Your task to perform on an android device: open app "Adobe Acrobat Reader: Edit PDF" (install if not already installed) and go to login screen Image 0: 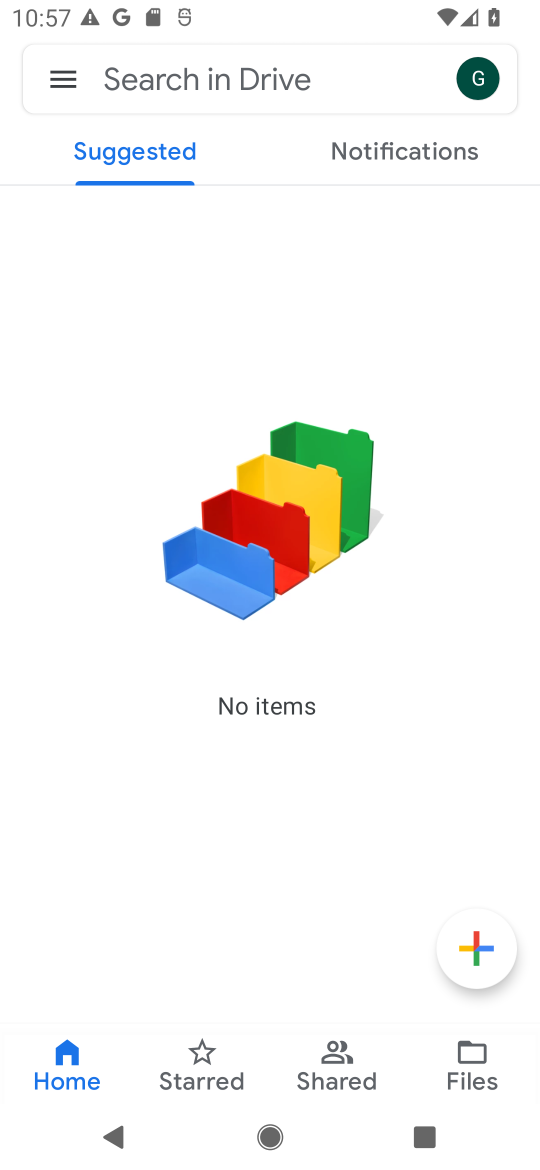
Step 0: press home button
Your task to perform on an android device: open app "Adobe Acrobat Reader: Edit PDF" (install if not already installed) and go to login screen Image 1: 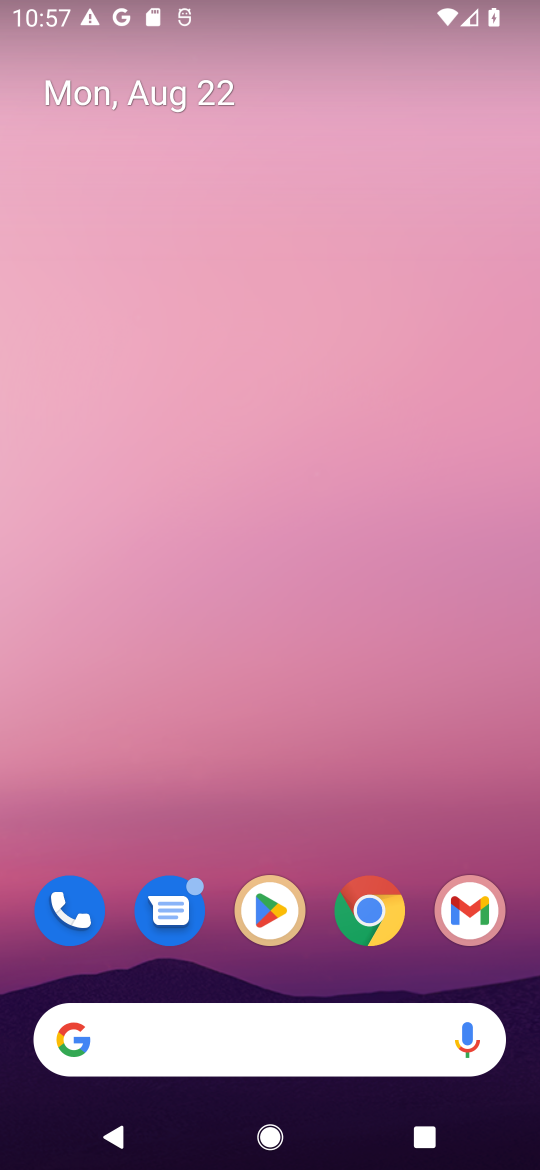
Step 1: click (253, 909)
Your task to perform on an android device: open app "Adobe Acrobat Reader: Edit PDF" (install if not already installed) and go to login screen Image 2: 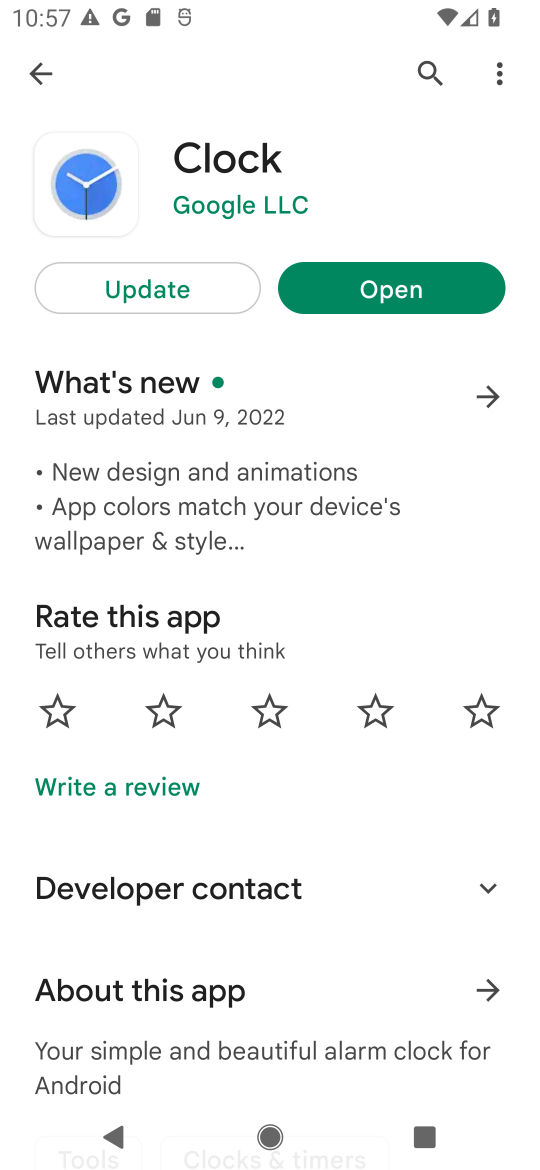
Step 2: click (429, 68)
Your task to perform on an android device: open app "Adobe Acrobat Reader: Edit PDF" (install if not already installed) and go to login screen Image 3: 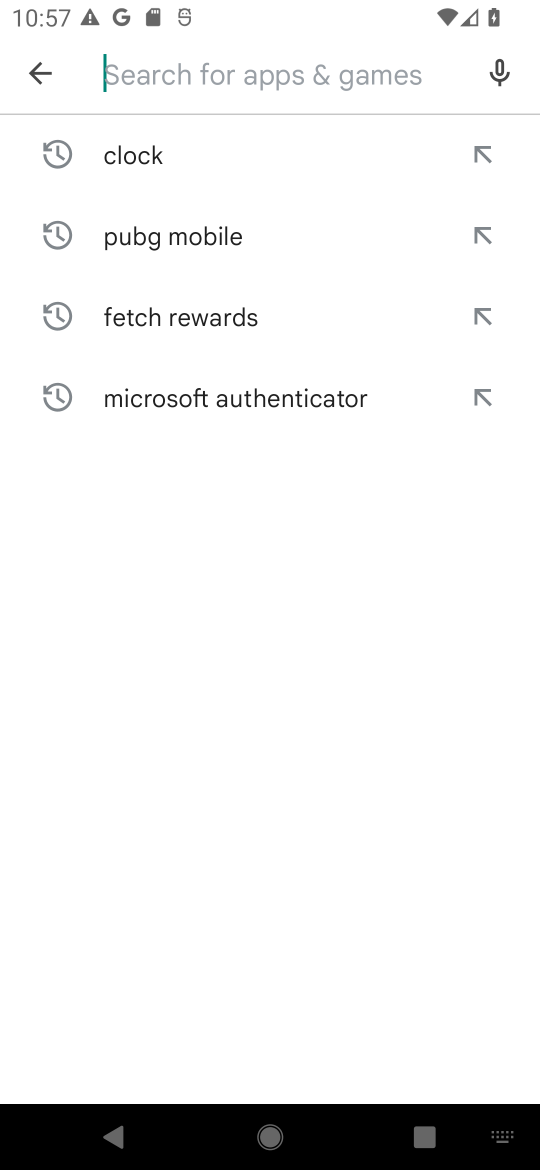
Step 3: type "Adobe Acrobat Reader: Edit PDF"
Your task to perform on an android device: open app "Adobe Acrobat Reader: Edit PDF" (install if not already installed) and go to login screen Image 4: 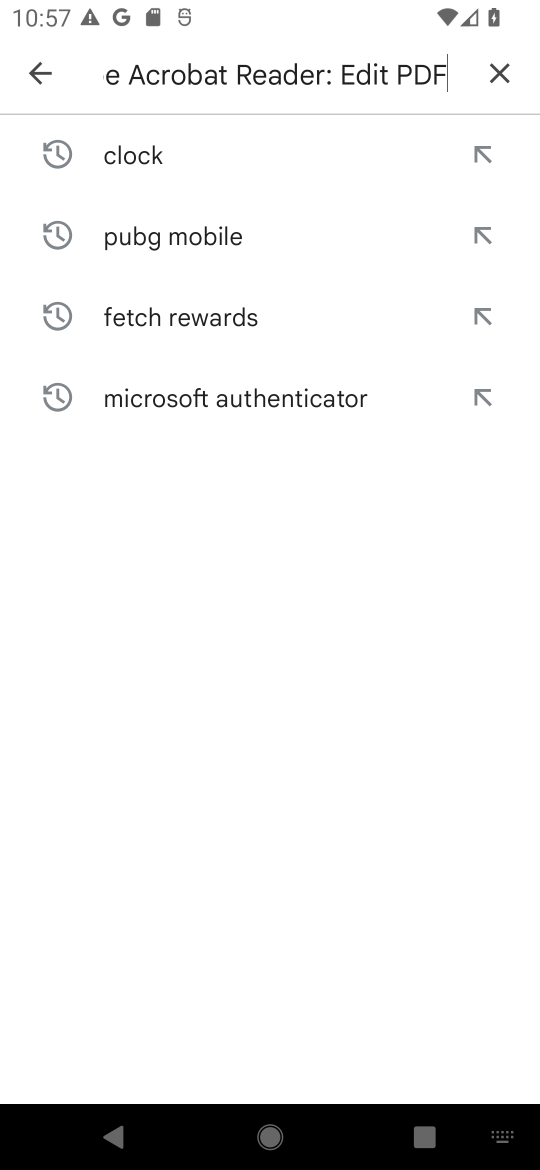
Step 4: type ""
Your task to perform on an android device: open app "Adobe Acrobat Reader: Edit PDF" (install if not already installed) and go to login screen Image 5: 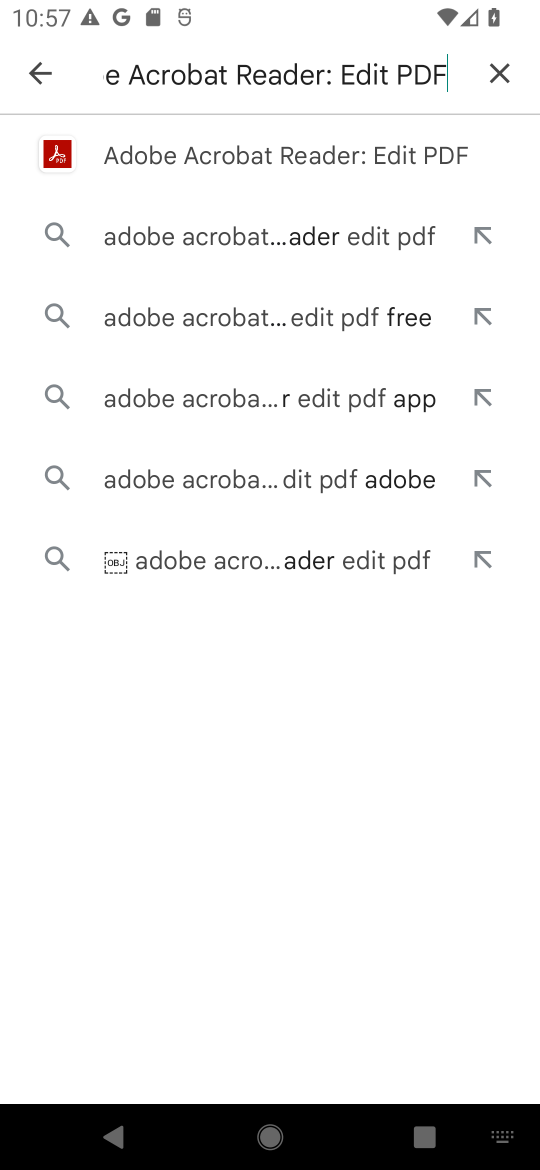
Step 5: click (180, 177)
Your task to perform on an android device: open app "Adobe Acrobat Reader: Edit PDF" (install if not already installed) and go to login screen Image 6: 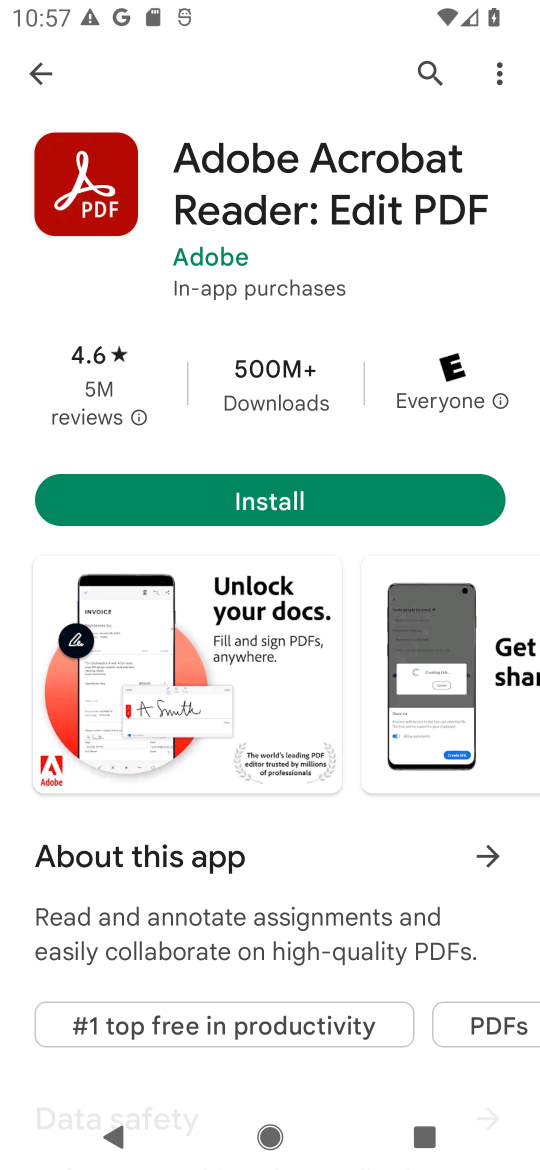
Step 6: click (276, 516)
Your task to perform on an android device: open app "Adobe Acrobat Reader: Edit PDF" (install if not already installed) and go to login screen Image 7: 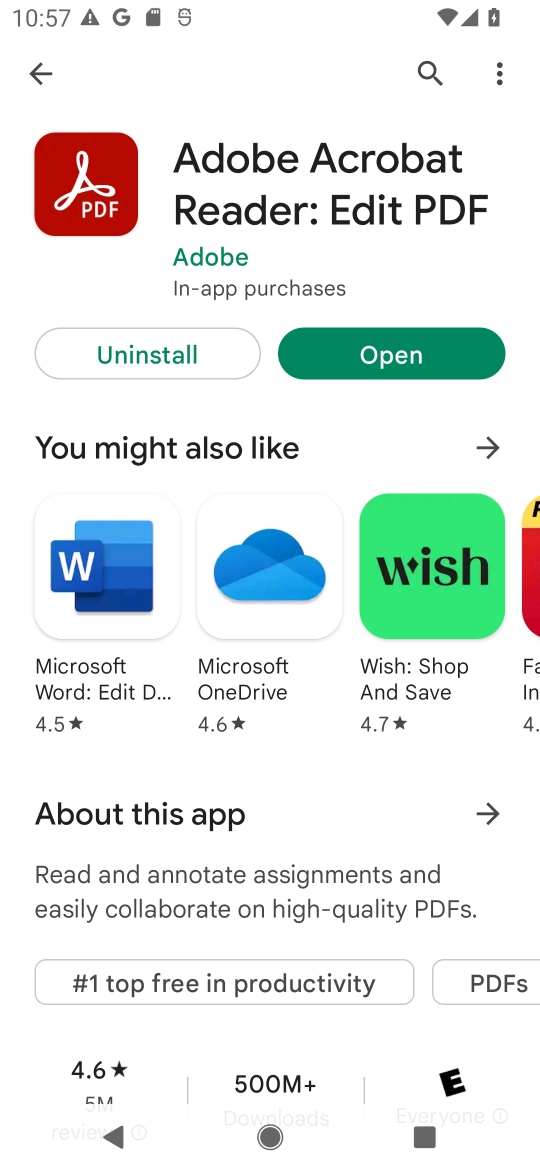
Step 7: click (392, 347)
Your task to perform on an android device: open app "Adobe Acrobat Reader: Edit PDF" (install if not already installed) and go to login screen Image 8: 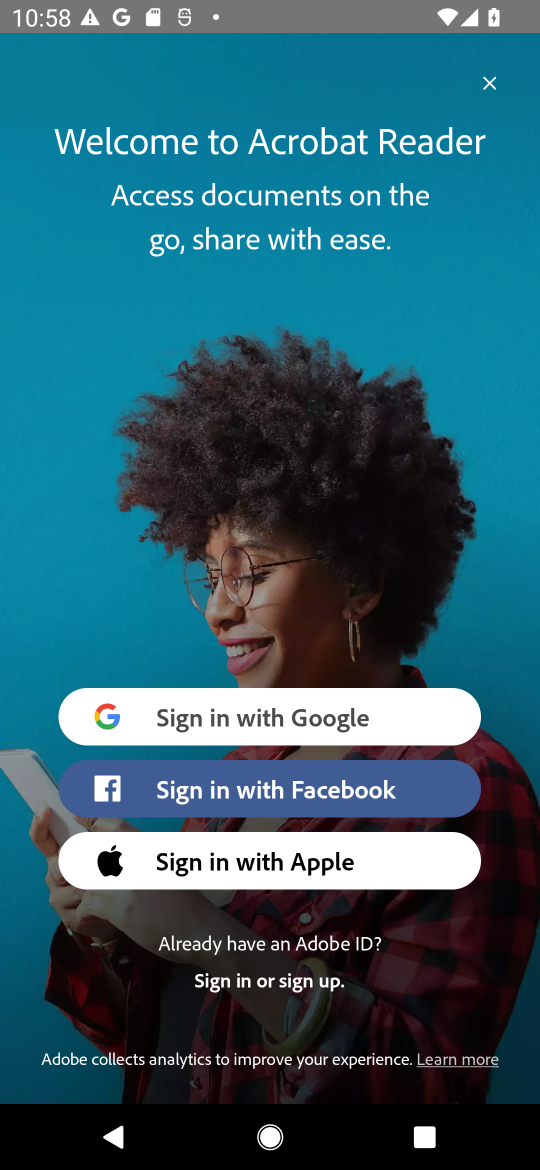
Step 8: task complete